Your task to perform on an android device: Open Chrome and go to settings Image 0: 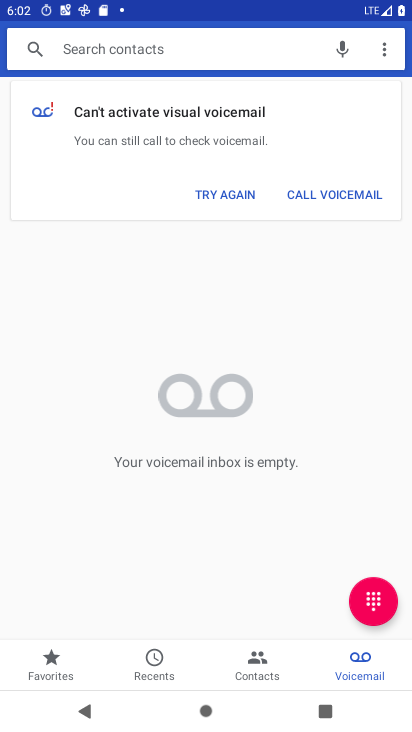
Step 0: press home button
Your task to perform on an android device: Open Chrome and go to settings Image 1: 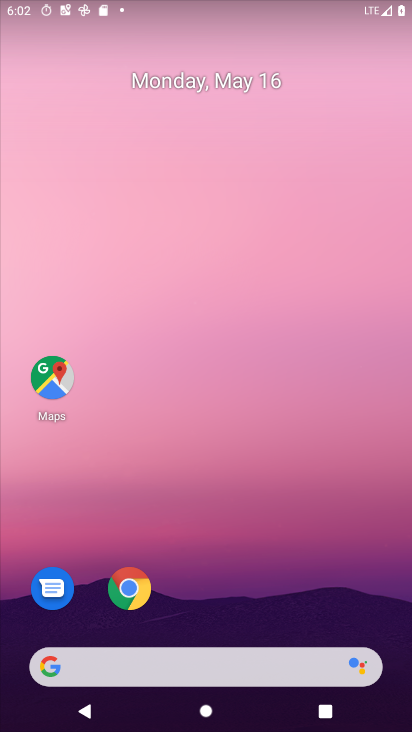
Step 1: click (117, 592)
Your task to perform on an android device: Open Chrome and go to settings Image 2: 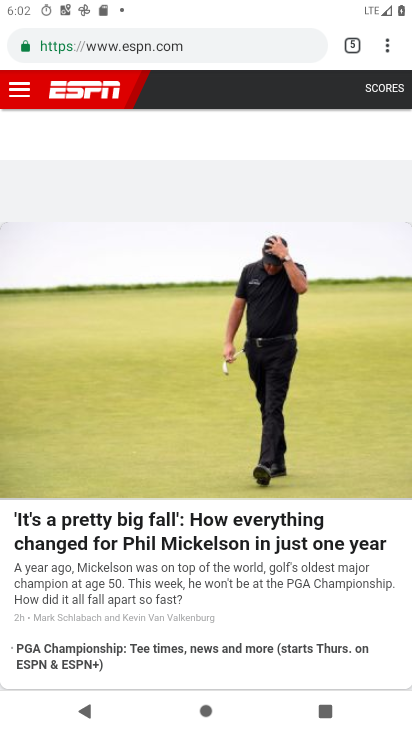
Step 2: click (384, 48)
Your task to perform on an android device: Open Chrome and go to settings Image 3: 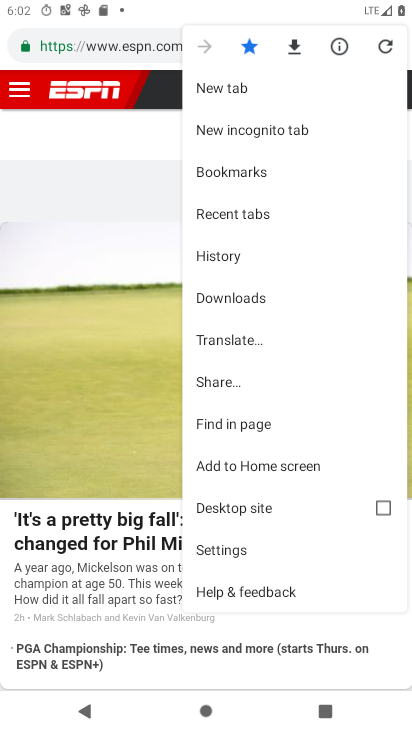
Step 3: click (269, 538)
Your task to perform on an android device: Open Chrome and go to settings Image 4: 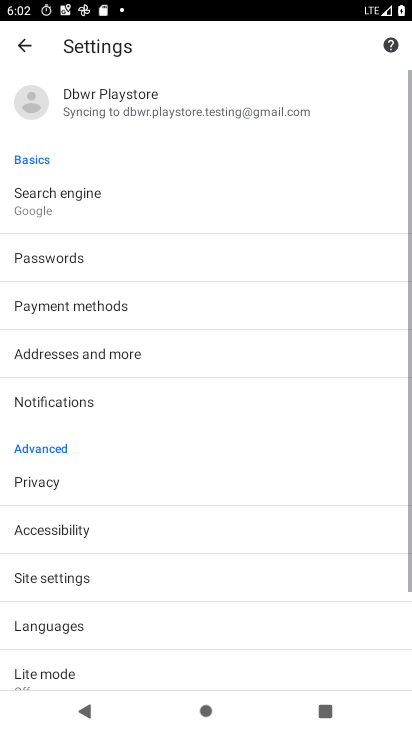
Step 4: task complete